Your task to perform on an android device: check google app version Image 0: 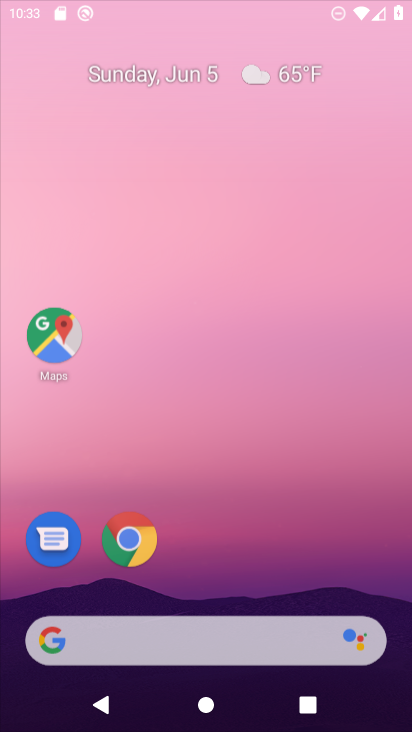
Step 0: click (209, 119)
Your task to perform on an android device: check google app version Image 1: 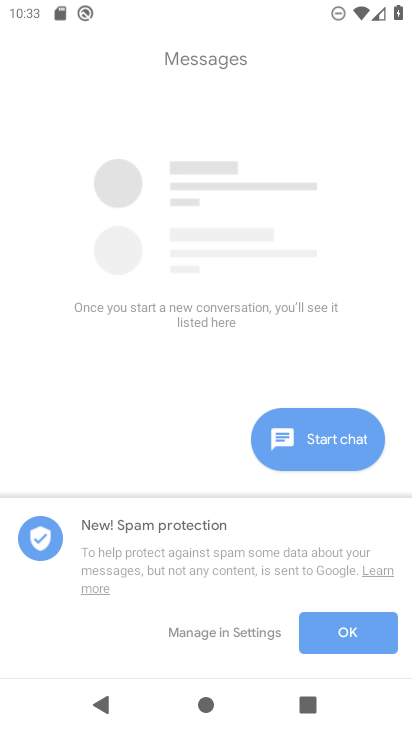
Step 1: drag from (210, 584) to (256, 136)
Your task to perform on an android device: check google app version Image 2: 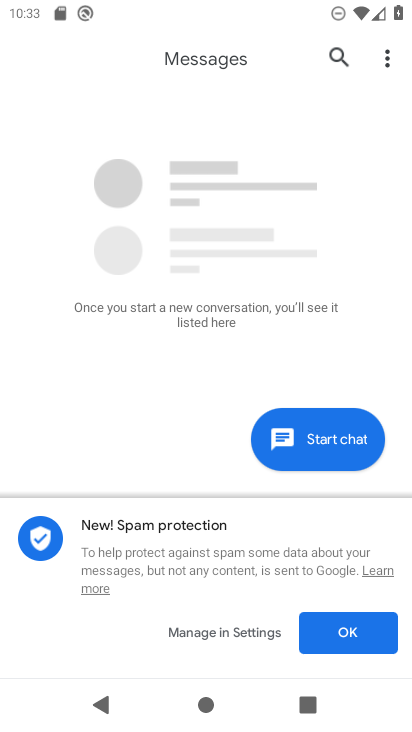
Step 2: press home button
Your task to perform on an android device: check google app version Image 3: 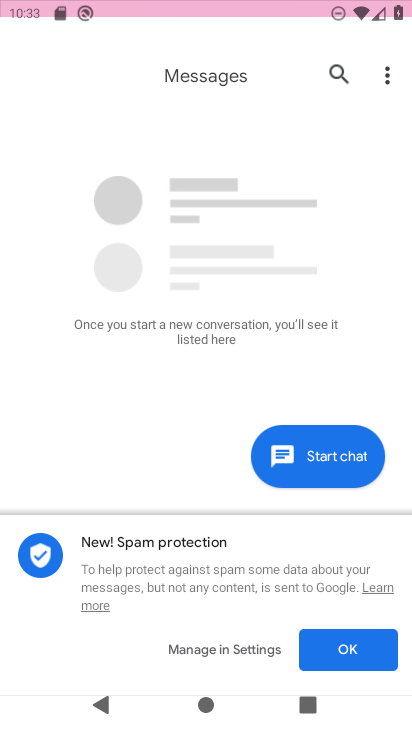
Step 3: drag from (213, 592) to (283, 157)
Your task to perform on an android device: check google app version Image 4: 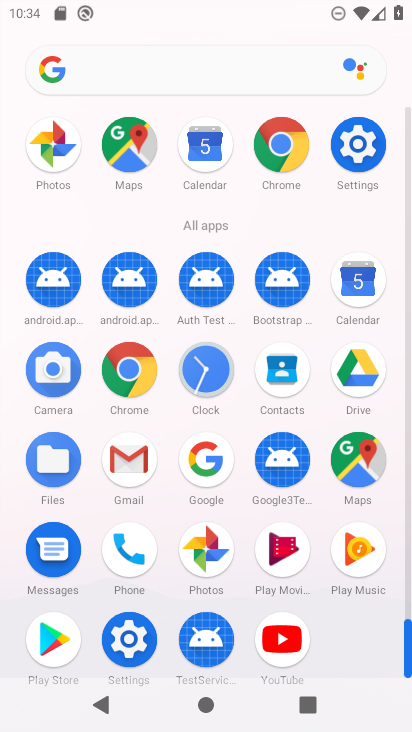
Step 4: click (209, 453)
Your task to perform on an android device: check google app version Image 5: 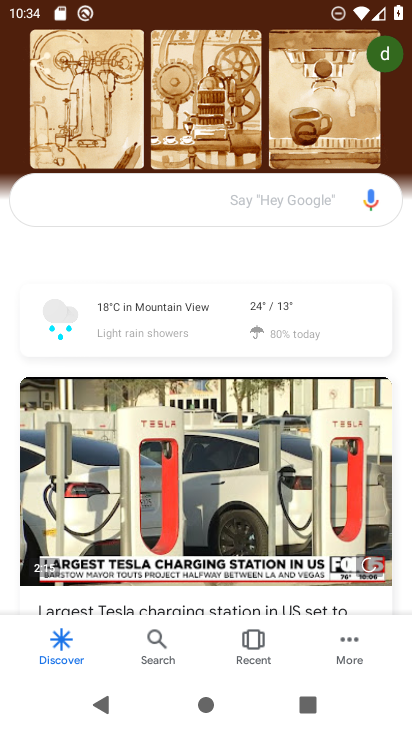
Step 5: drag from (270, 483) to (326, 173)
Your task to perform on an android device: check google app version Image 6: 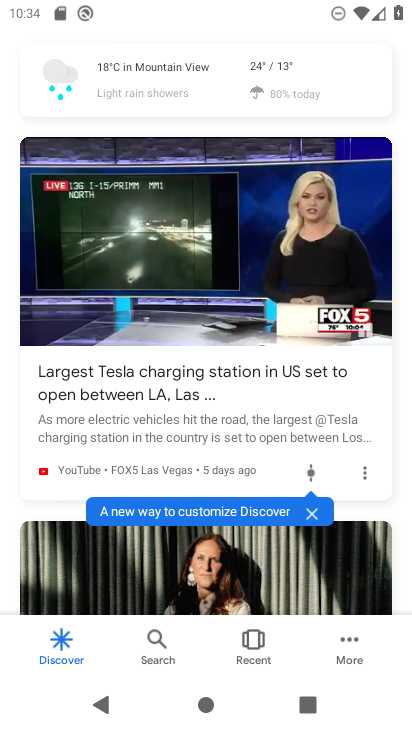
Step 6: drag from (233, 410) to (261, 561)
Your task to perform on an android device: check google app version Image 7: 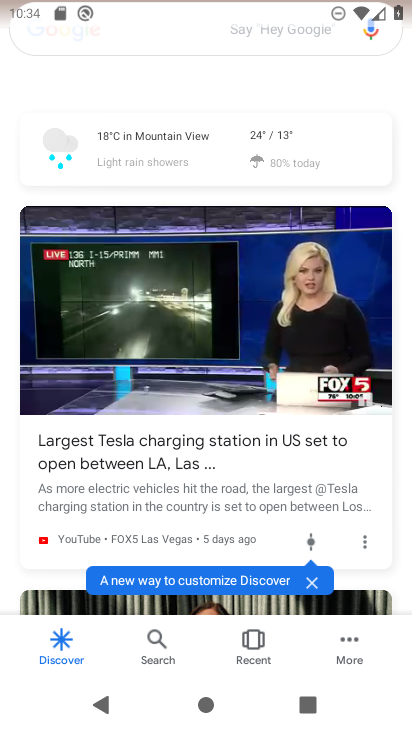
Step 7: click (326, 654)
Your task to perform on an android device: check google app version Image 8: 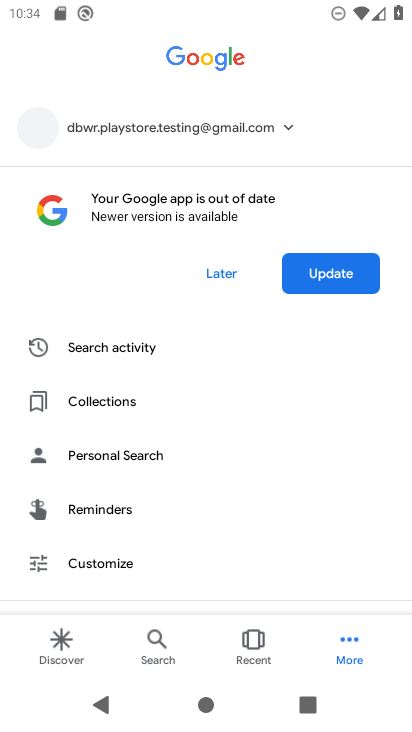
Step 8: drag from (187, 519) to (231, 102)
Your task to perform on an android device: check google app version Image 9: 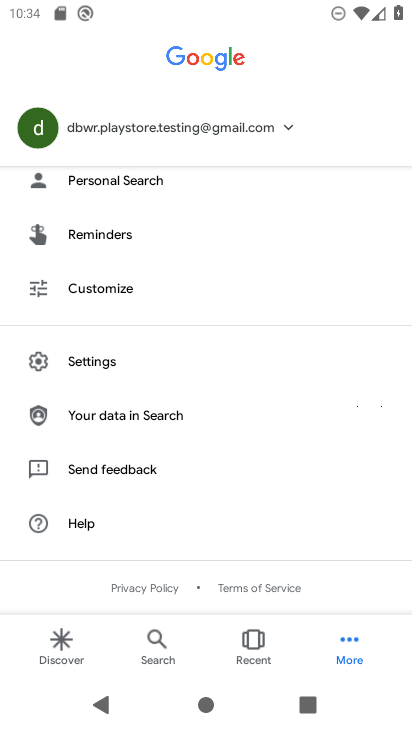
Step 9: click (105, 363)
Your task to perform on an android device: check google app version Image 10: 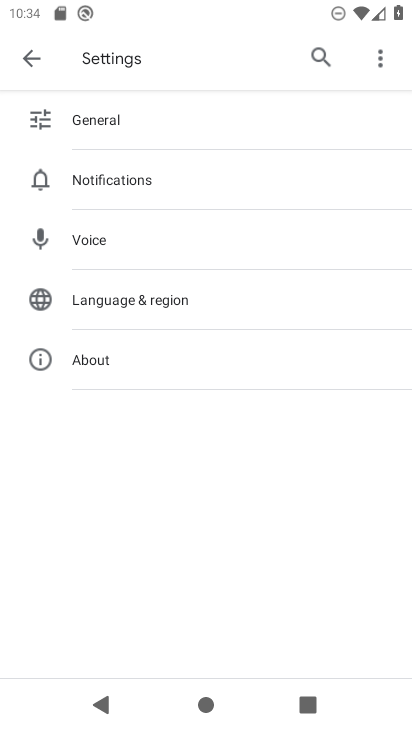
Step 10: click (105, 345)
Your task to perform on an android device: check google app version Image 11: 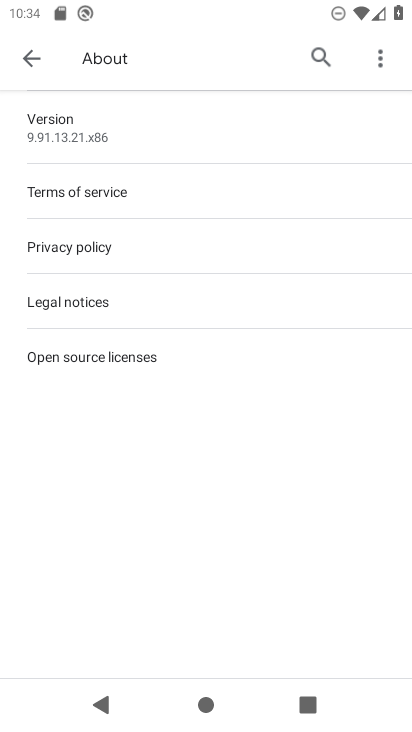
Step 11: click (193, 135)
Your task to perform on an android device: check google app version Image 12: 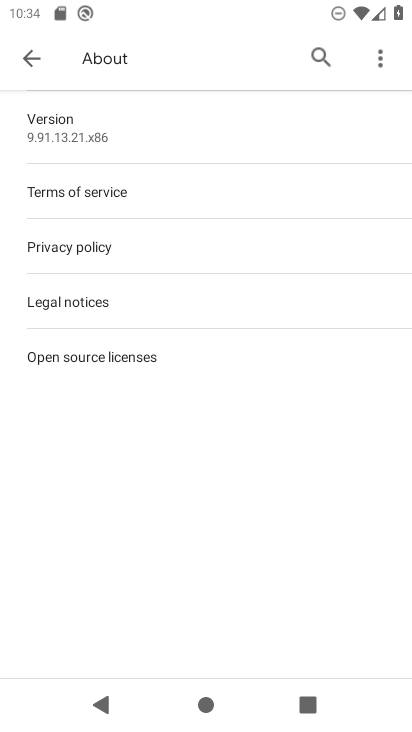
Step 12: task complete